Your task to perform on an android device: What is the news today? Image 0: 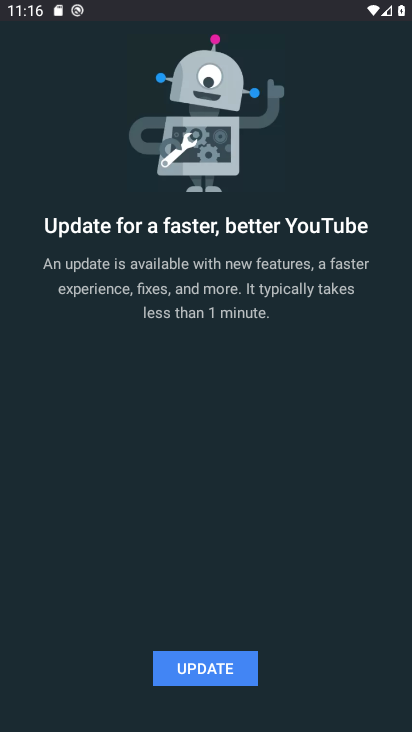
Step 0: press home button
Your task to perform on an android device: What is the news today? Image 1: 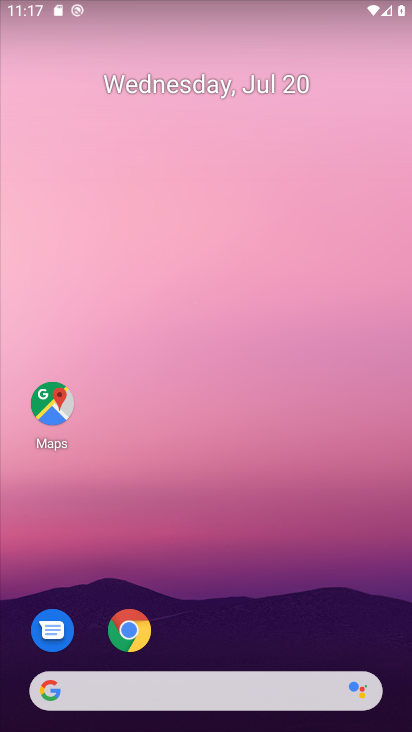
Step 1: click (159, 687)
Your task to perform on an android device: What is the news today? Image 2: 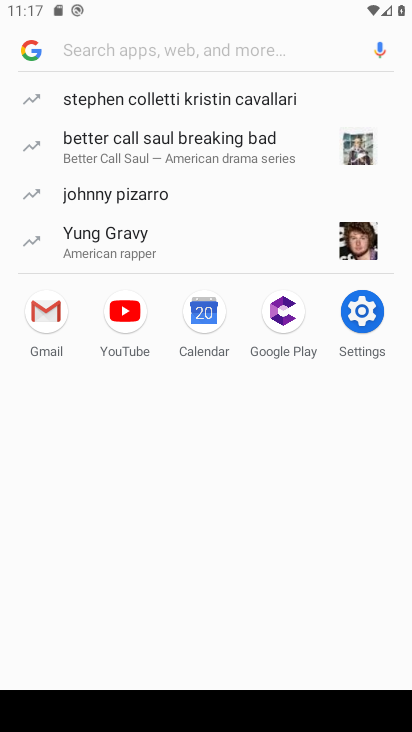
Step 2: type "What is the news today?"
Your task to perform on an android device: What is the news today? Image 3: 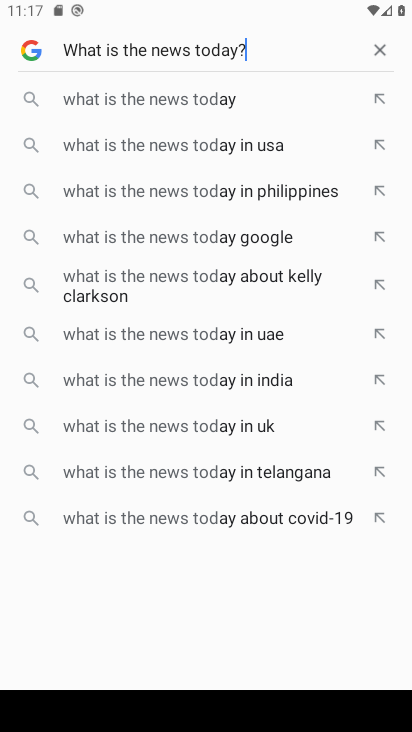
Step 3: press enter
Your task to perform on an android device: What is the news today? Image 4: 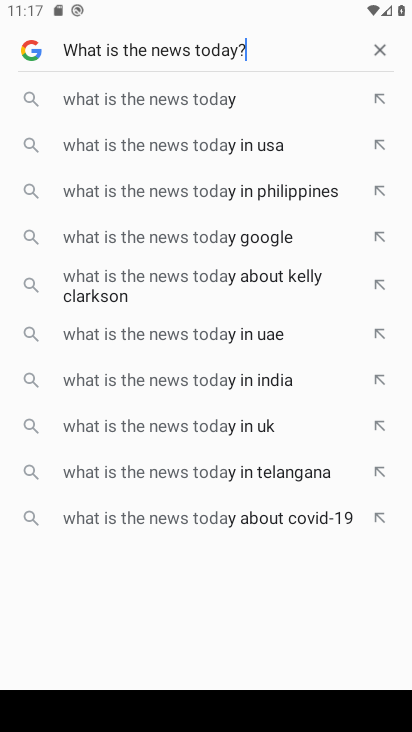
Step 4: type ""
Your task to perform on an android device: What is the news today? Image 5: 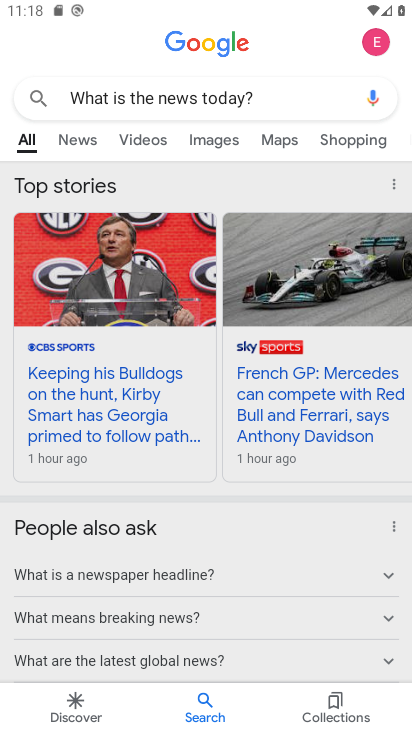
Step 5: task complete